Your task to perform on an android device: Open Maps and search for coffee Image 0: 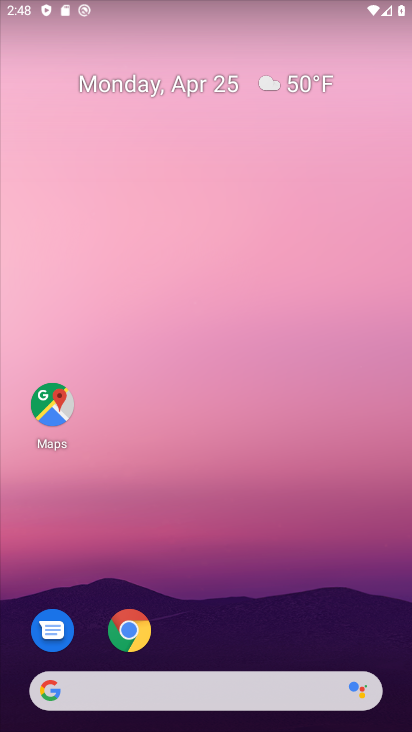
Step 0: click (54, 408)
Your task to perform on an android device: Open Maps and search for coffee Image 1: 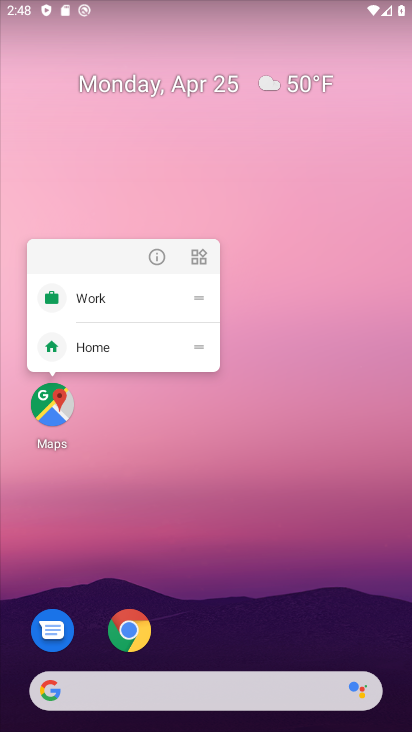
Step 1: click (42, 396)
Your task to perform on an android device: Open Maps and search for coffee Image 2: 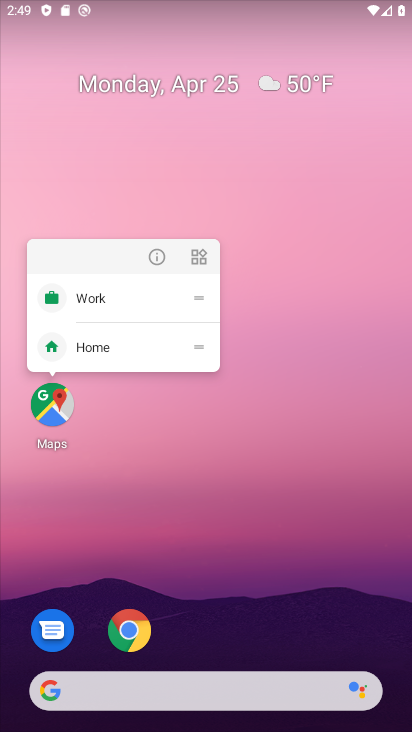
Step 2: click (52, 405)
Your task to perform on an android device: Open Maps and search for coffee Image 3: 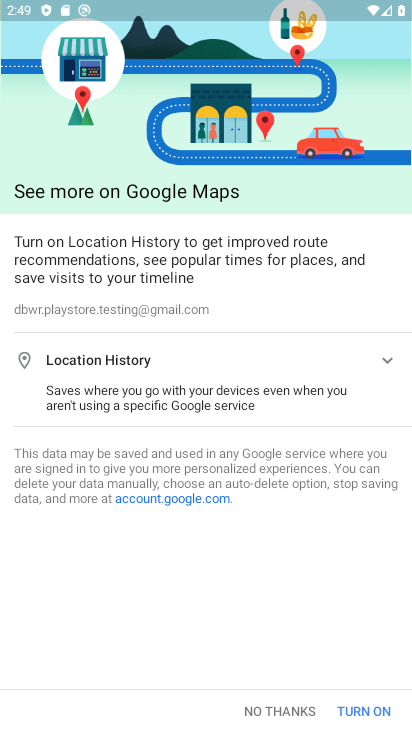
Step 3: press back button
Your task to perform on an android device: Open Maps and search for coffee Image 4: 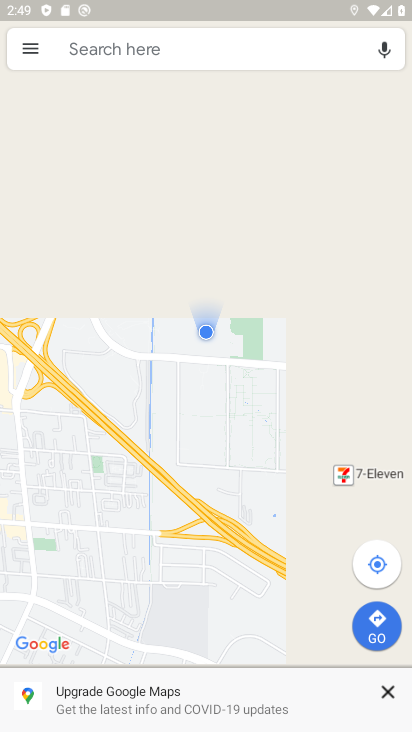
Step 4: click (216, 44)
Your task to perform on an android device: Open Maps and search for coffee Image 5: 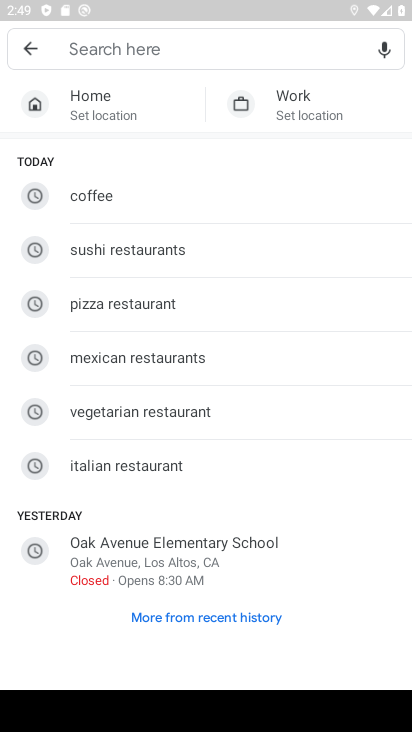
Step 5: click (81, 197)
Your task to perform on an android device: Open Maps and search for coffee Image 6: 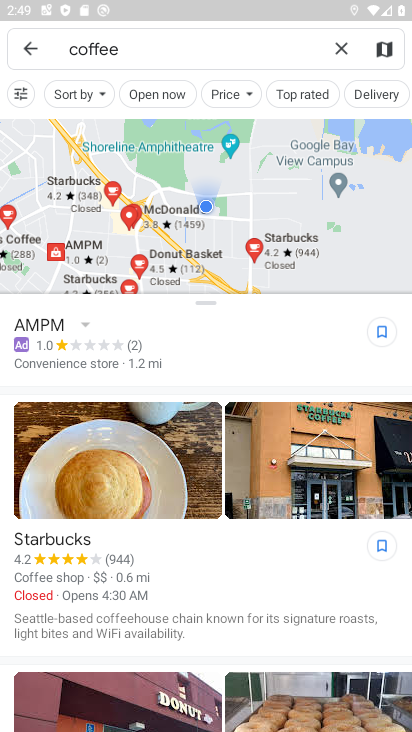
Step 6: task complete